Your task to perform on an android device: Search for Mexican restaurants on Maps Image 0: 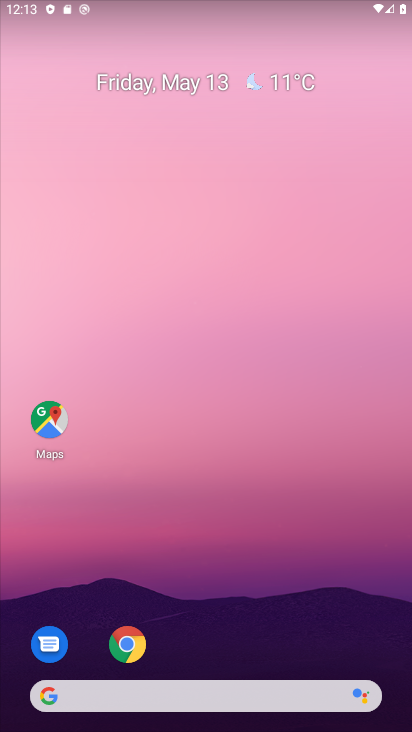
Step 0: drag from (215, 712) to (214, 105)
Your task to perform on an android device: Search for Mexican restaurants on Maps Image 1: 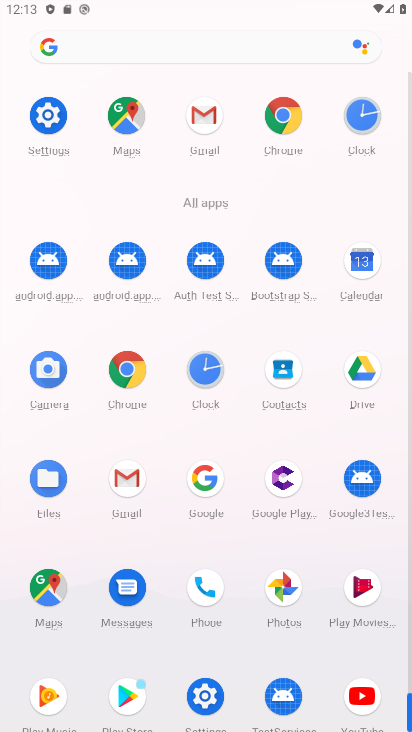
Step 1: click (114, 110)
Your task to perform on an android device: Search for Mexican restaurants on Maps Image 2: 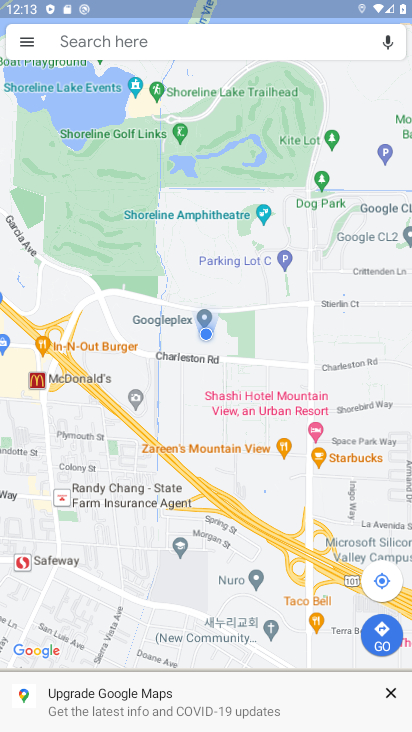
Step 2: click (142, 41)
Your task to perform on an android device: Search for Mexican restaurants on Maps Image 3: 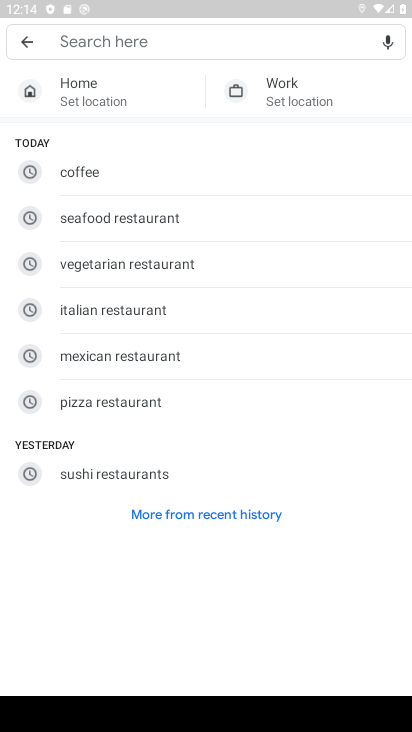
Step 3: type "Mexican restaurants"
Your task to perform on an android device: Search for Mexican restaurants on Maps Image 4: 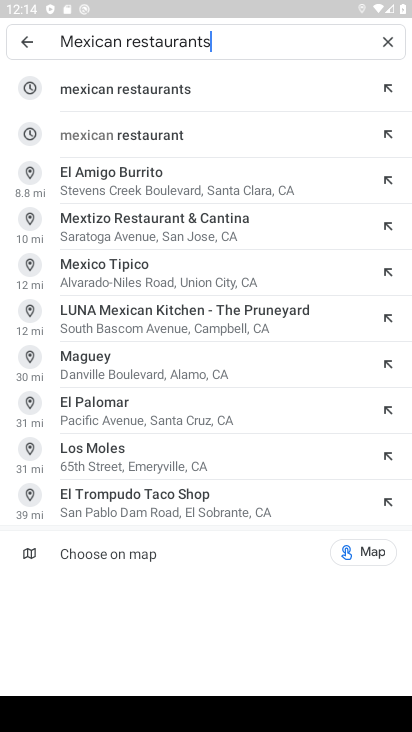
Step 4: click (115, 83)
Your task to perform on an android device: Search for Mexican restaurants on Maps Image 5: 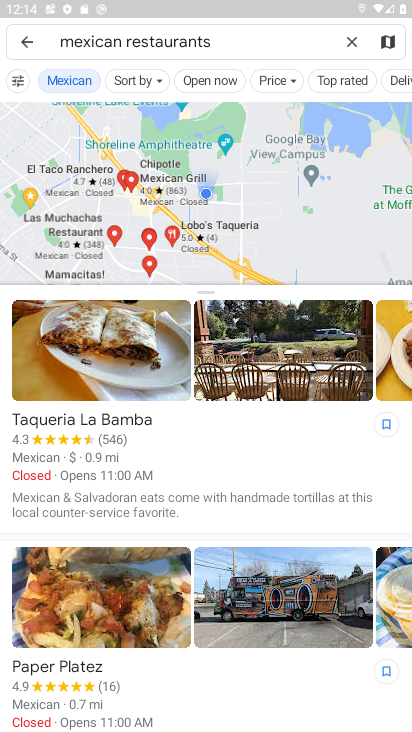
Step 5: task complete